Your task to perform on an android device: turn off notifications in google photos Image 0: 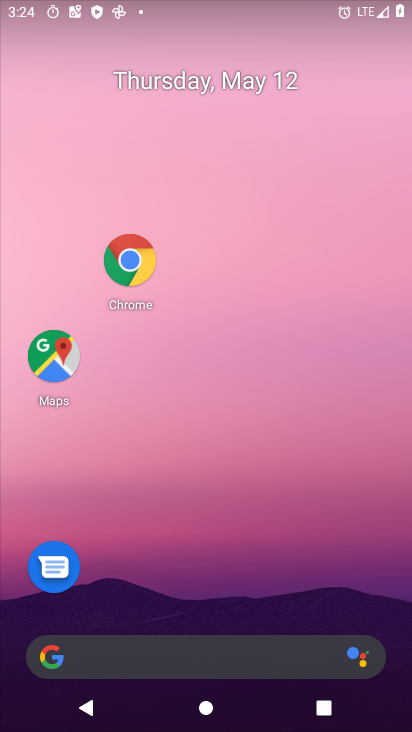
Step 0: drag from (197, 633) to (279, 147)
Your task to perform on an android device: turn off notifications in google photos Image 1: 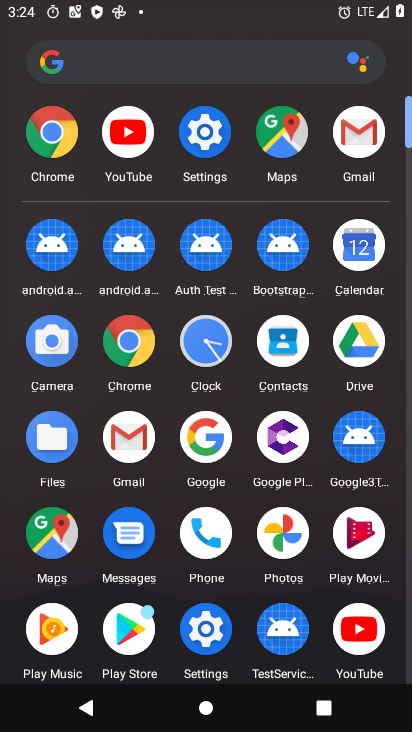
Step 1: click (281, 540)
Your task to perform on an android device: turn off notifications in google photos Image 2: 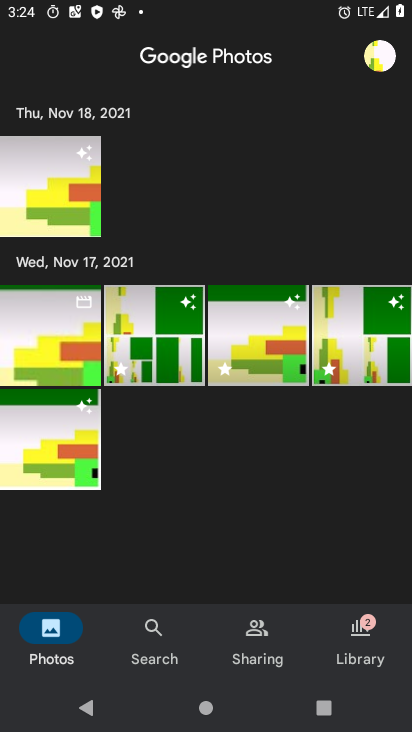
Step 2: click (369, 61)
Your task to perform on an android device: turn off notifications in google photos Image 3: 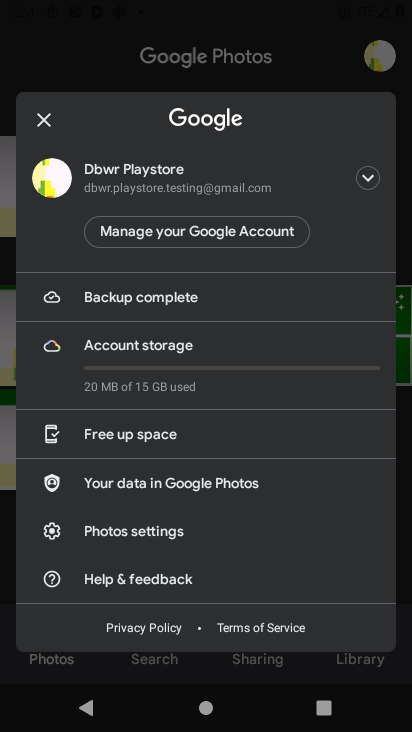
Step 3: click (146, 526)
Your task to perform on an android device: turn off notifications in google photos Image 4: 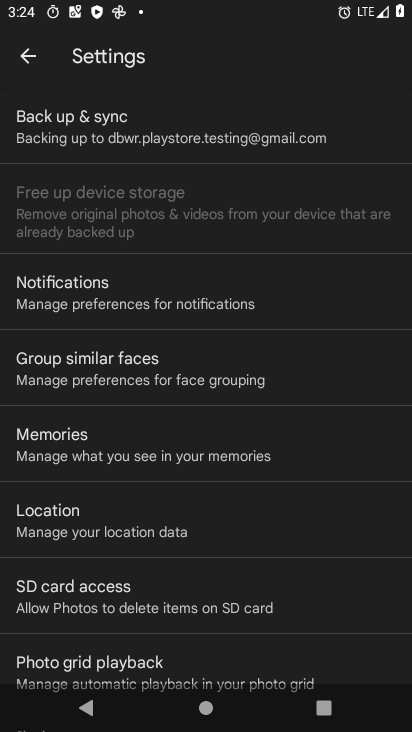
Step 4: drag from (160, 680) to (160, 339)
Your task to perform on an android device: turn off notifications in google photos Image 5: 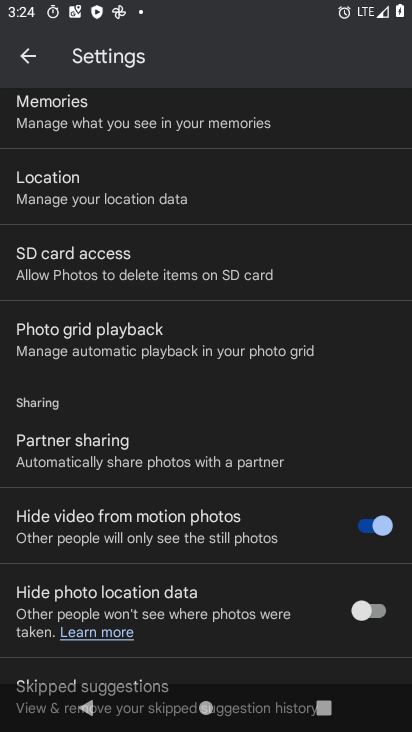
Step 5: drag from (221, 154) to (225, 457)
Your task to perform on an android device: turn off notifications in google photos Image 6: 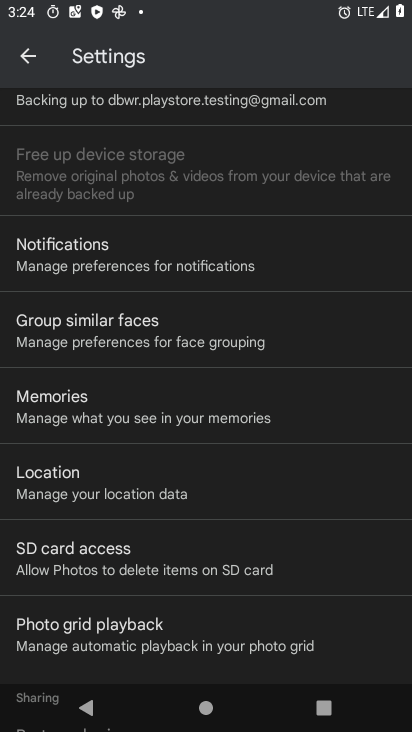
Step 6: click (128, 258)
Your task to perform on an android device: turn off notifications in google photos Image 7: 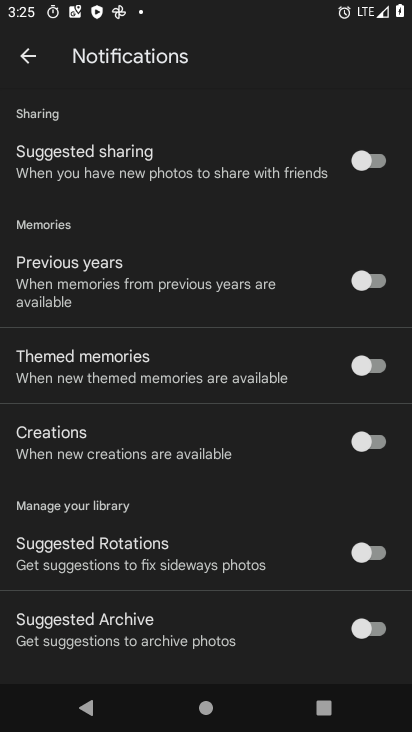
Step 7: click (194, 357)
Your task to perform on an android device: turn off notifications in google photos Image 8: 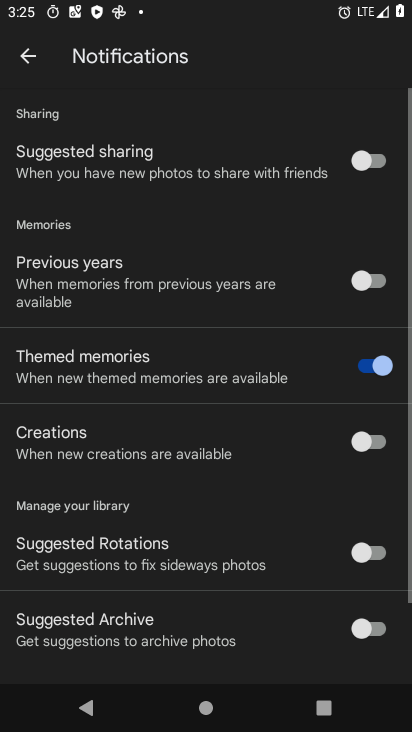
Step 8: click (101, 635)
Your task to perform on an android device: turn off notifications in google photos Image 9: 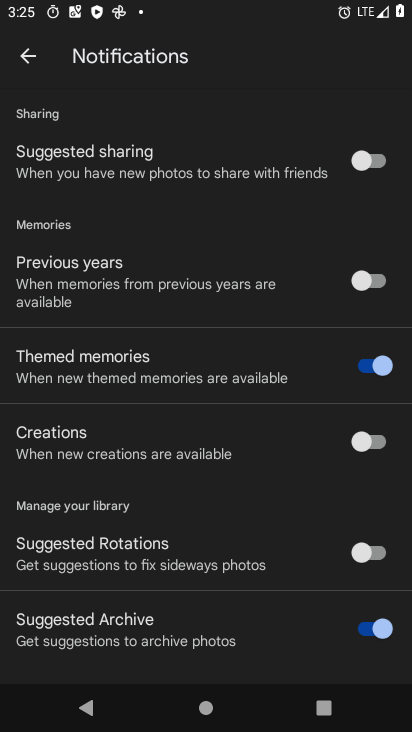
Step 9: drag from (198, 147) to (223, 450)
Your task to perform on an android device: turn off notifications in google photos Image 10: 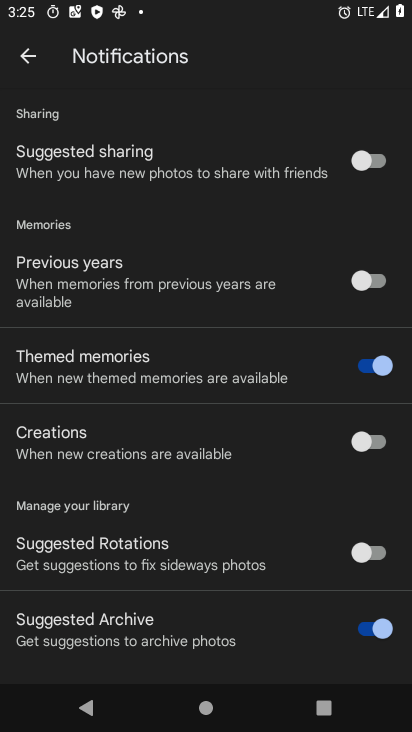
Step 10: drag from (208, 107) to (214, 447)
Your task to perform on an android device: turn off notifications in google photos Image 11: 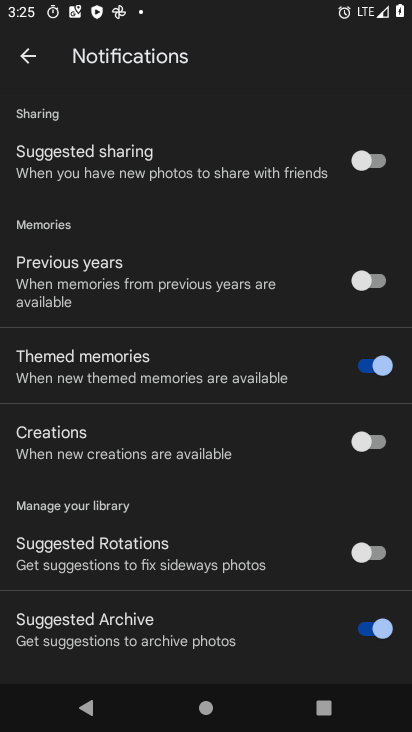
Step 11: drag from (217, 654) to (258, 314)
Your task to perform on an android device: turn off notifications in google photos Image 12: 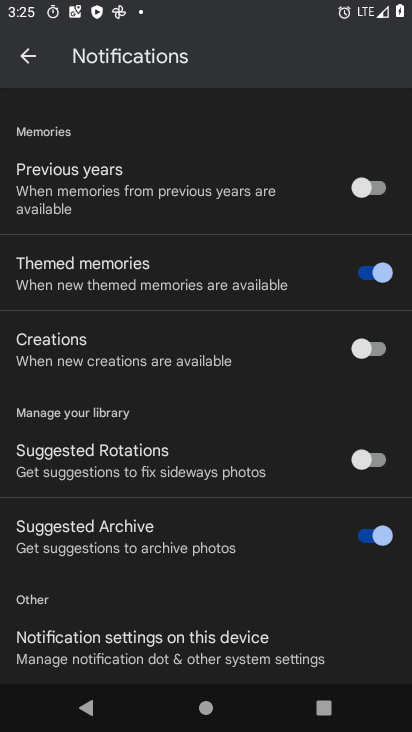
Step 12: click (149, 640)
Your task to perform on an android device: turn off notifications in google photos Image 13: 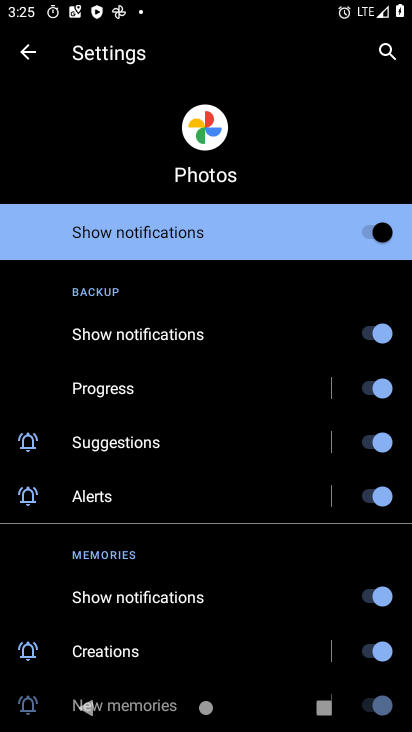
Step 13: click (362, 232)
Your task to perform on an android device: turn off notifications in google photos Image 14: 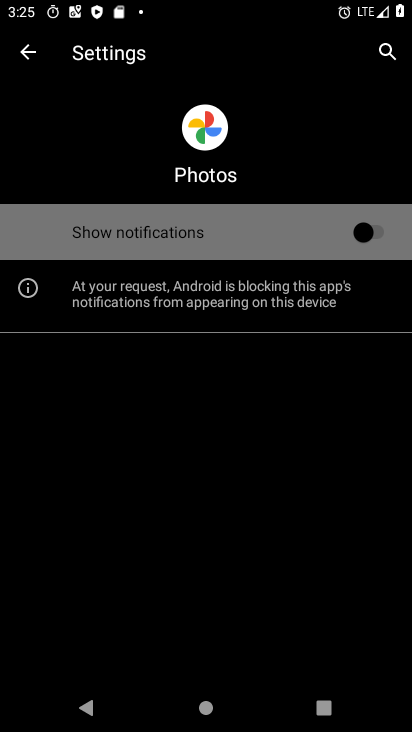
Step 14: task complete